Your task to perform on an android device: Go to sound settings Image 0: 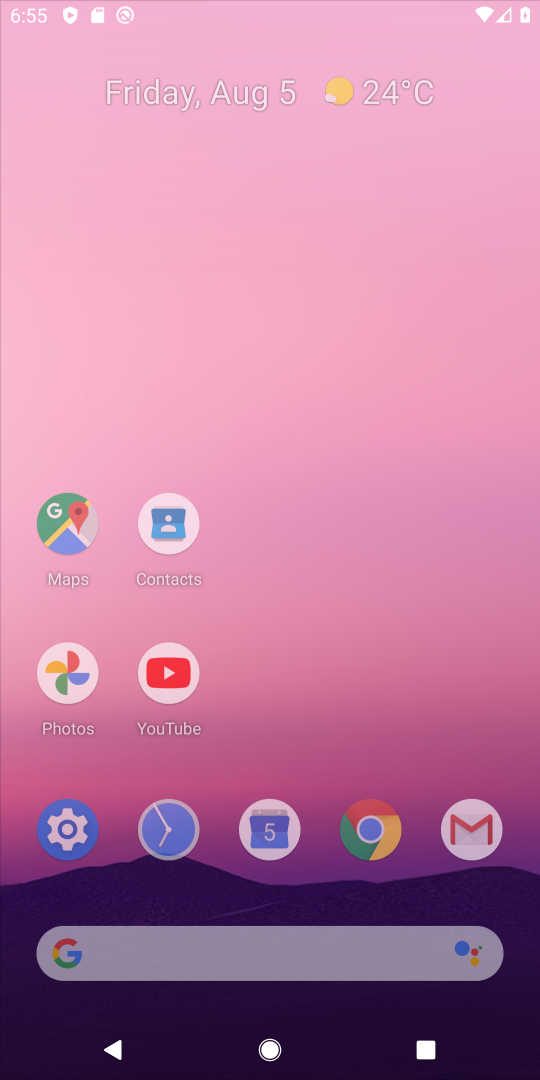
Step 0: press home button
Your task to perform on an android device: Go to sound settings Image 1: 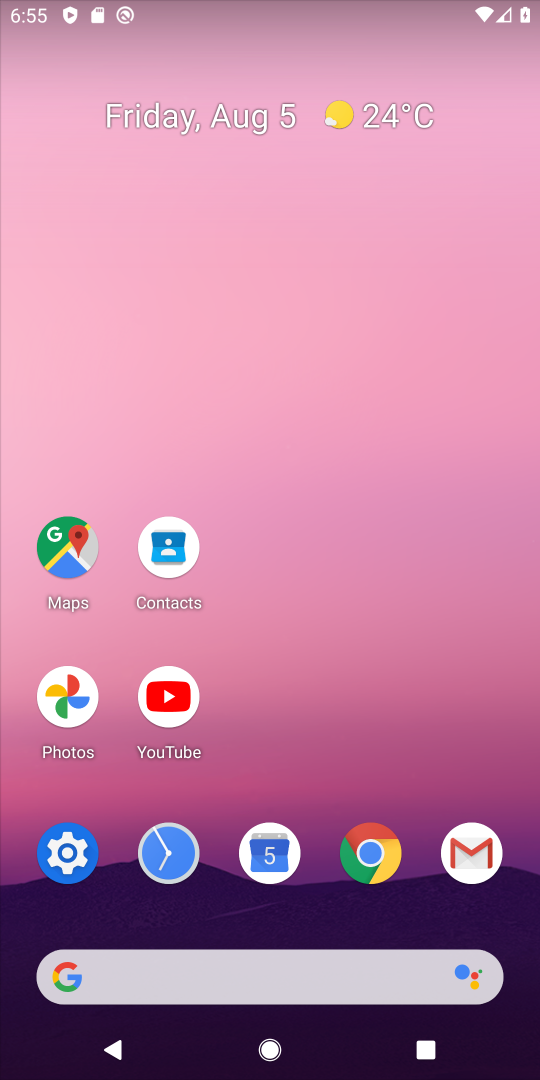
Step 1: click (67, 857)
Your task to perform on an android device: Go to sound settings Image 2: 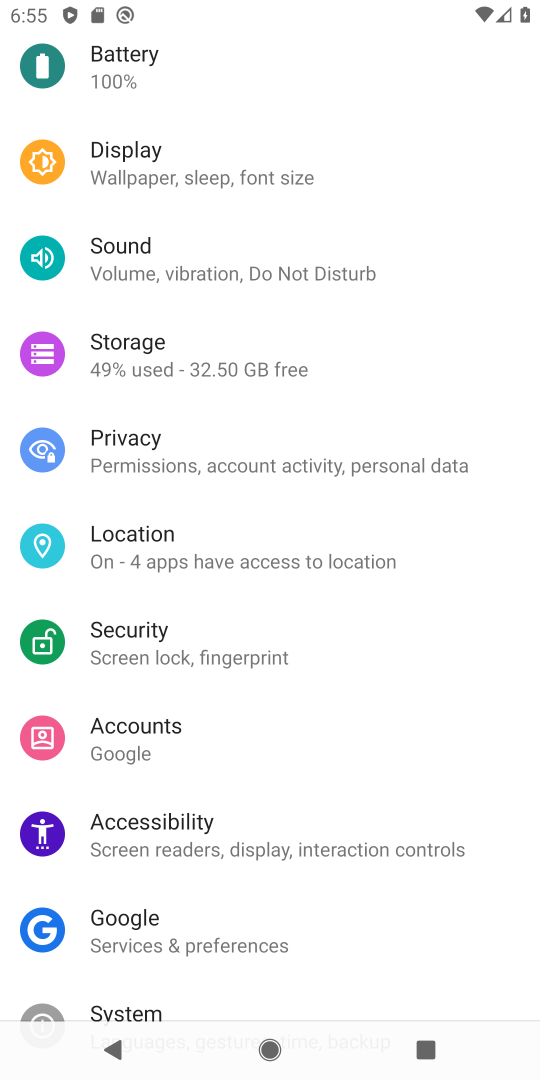
Step 2: drag from (366, 878) to (358, 324)
Your task to perform on an android device: Go to sound settings Image 3: 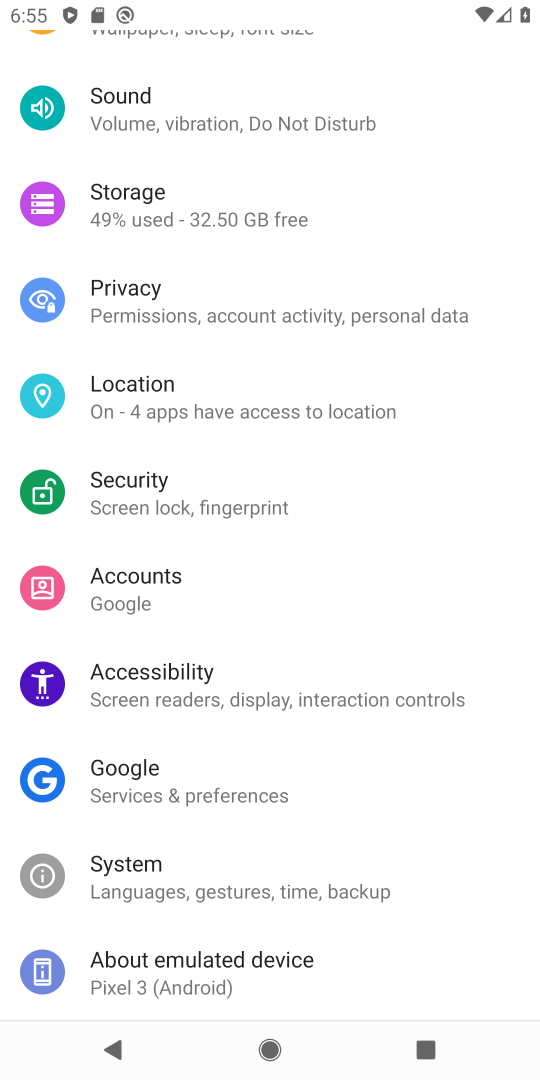
Step 3: click (122, 86)
Your task to perform on an android device: Go to sound settings Image 4: 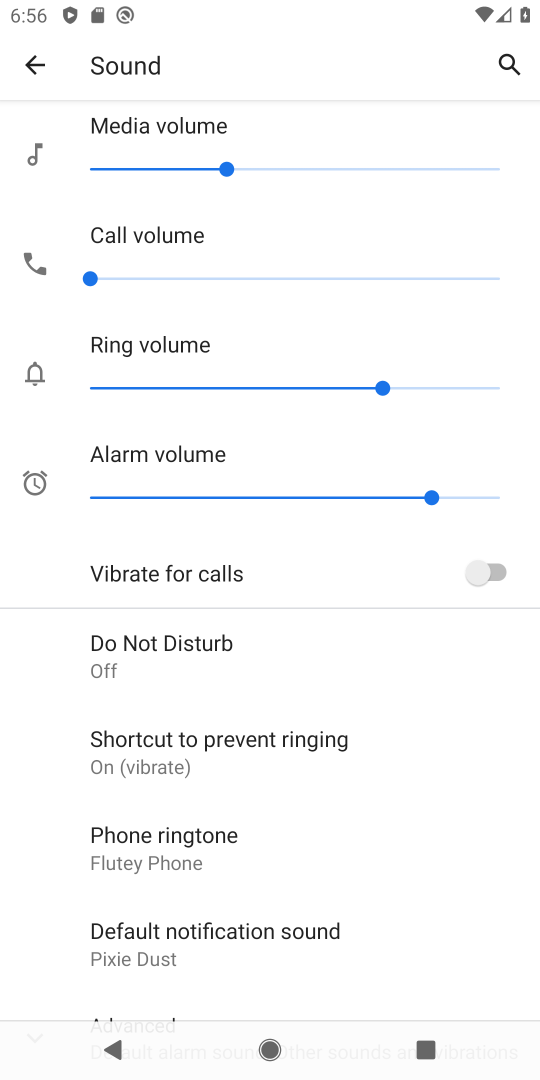
Step 4: task complete